Your task to perform on an android device: add a contact Image 0: 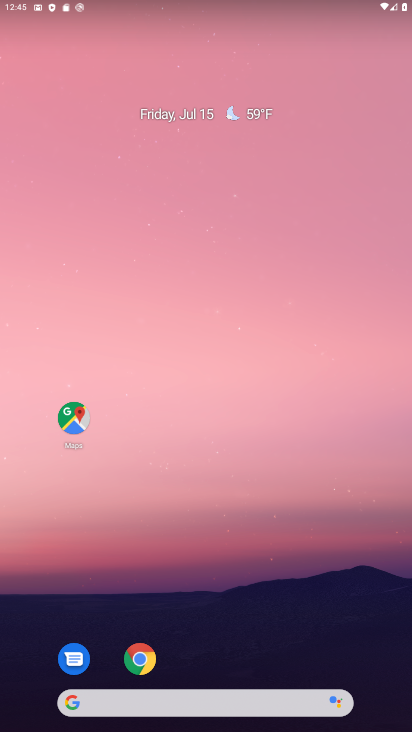
Step 0: drag from (200, 611) to (233, 139)
Your task to perform on an android device: add a contact Image 1: 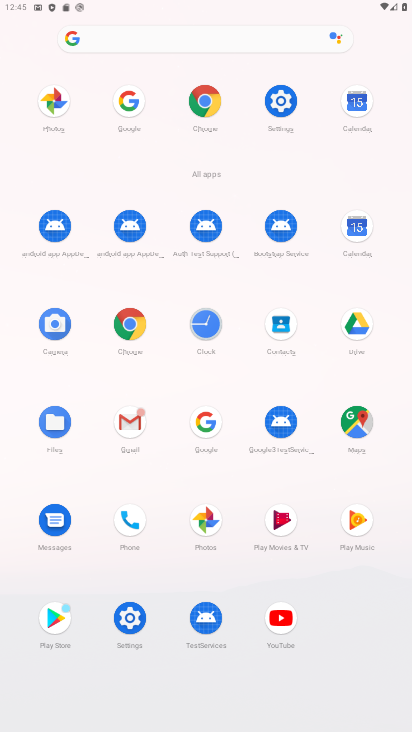
Step 1: click (284, 323)
Your task to perform on an android device: add a contact Image 2: 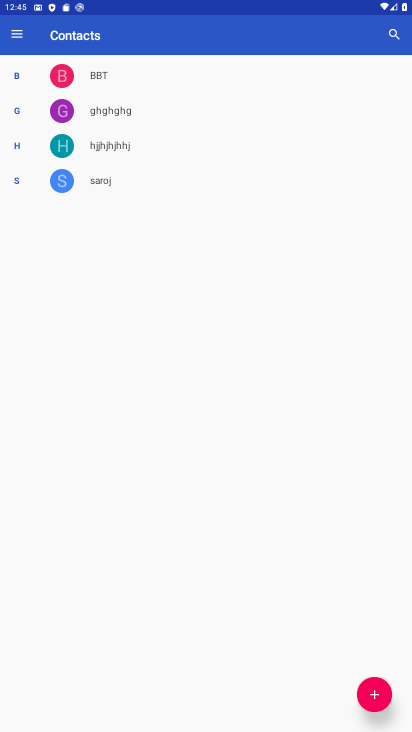
Step 2: click (367, 691)
Your task to perform on an android device: add a contact Image 3: 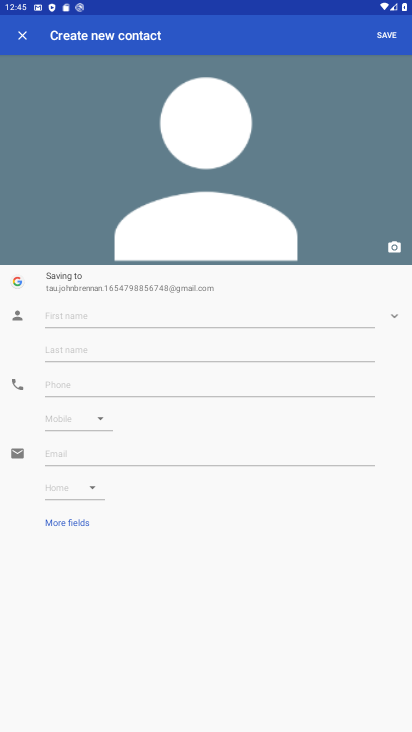
Step 3: click (85, 305)
Your task to perform on an android device: add a contact Image 4: 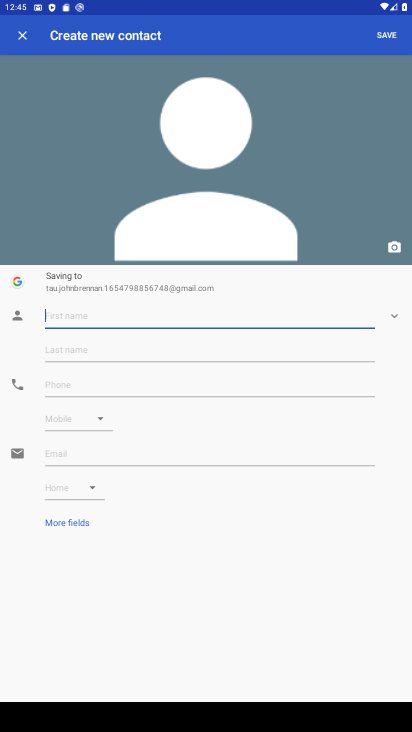
Step 4: type "shiva ji"
Your task to perform on an android device: add a contact Image 5: 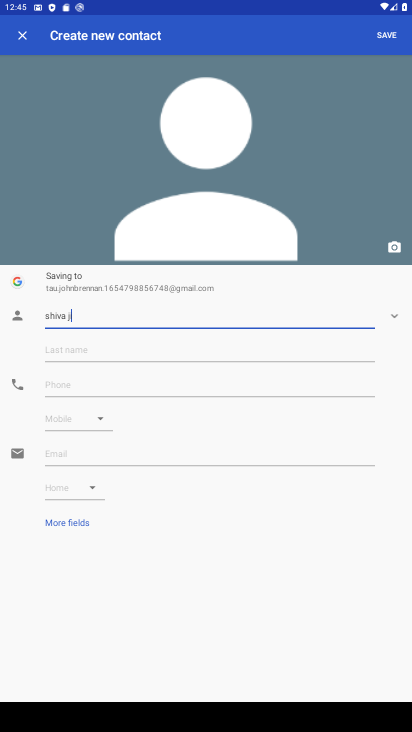
Step 5: click (71, 382)
Your task to perform on an android device: add a contact Image 6: 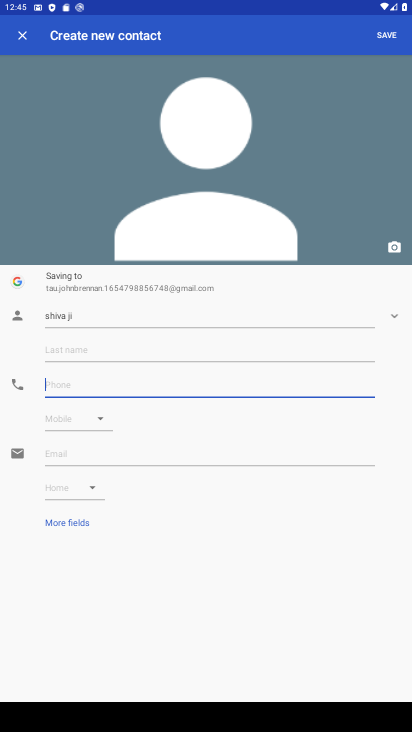
Step 6: type "989898"
Your task to perform on an android device: add a contact Image 7: 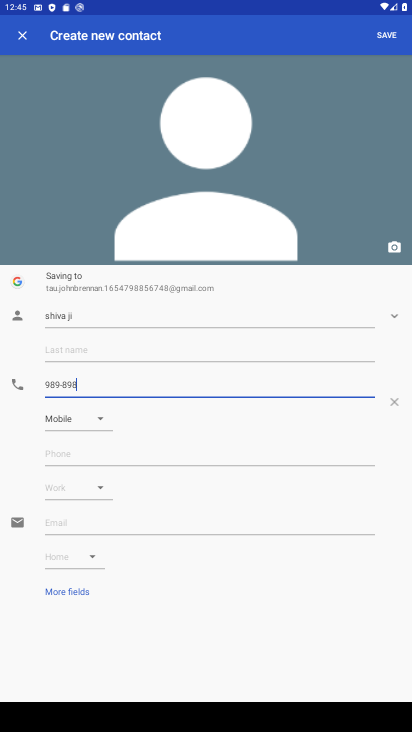
Step 7: click (382, 32)
Your task to perform on an android device: add a contact Image 8: 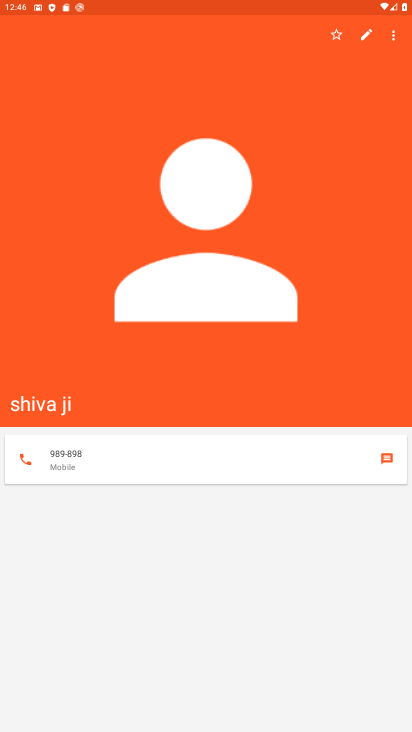
Step 8: task complete